Your task to perform on an android device: turn off wifi Image 0: 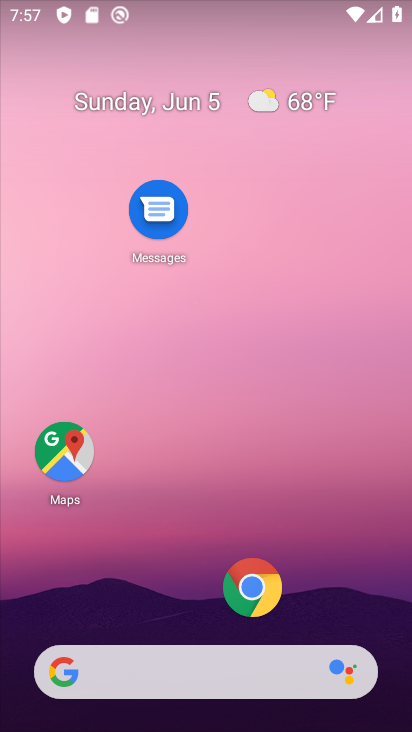
Step 0: press home button
Your task to perform on an android device: turn off wifi Image 1: 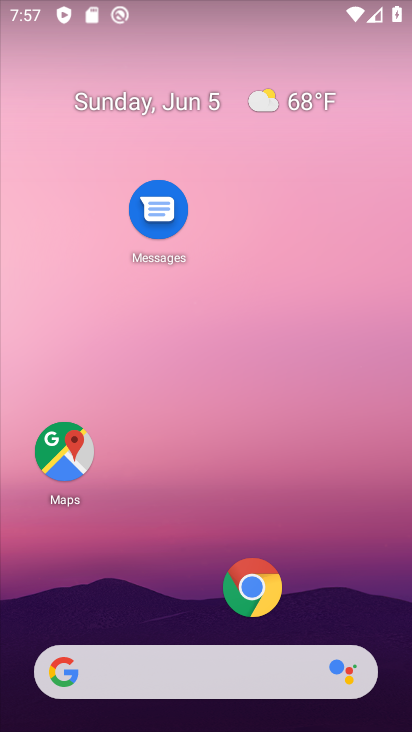
Step 1: drag from (183, 4) to (202, 515)
Your task to perform on an android device: turn off wifi Image 2: 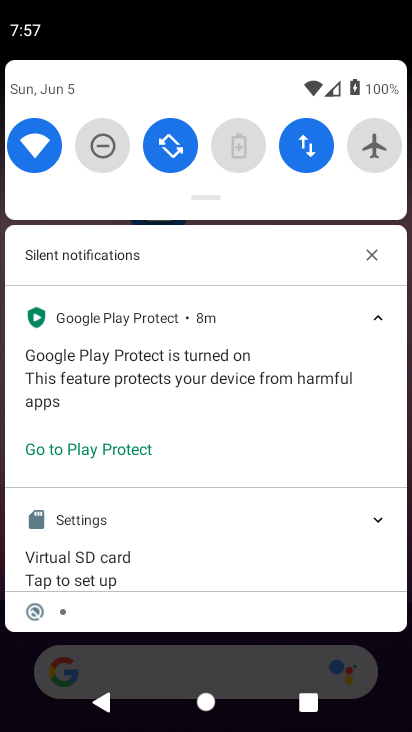
Step 2: click (29, 139)
Your task to perform on an android device: turn off wifi Image 3: 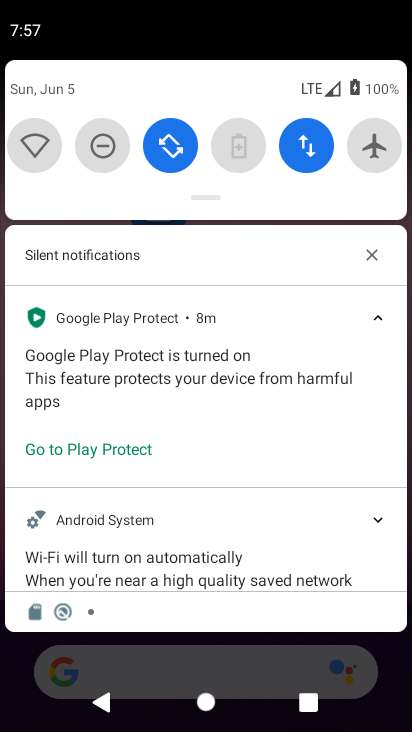
Step 3: task complete